Your task to perform on an android device: Turn on the flashlight Image 0: 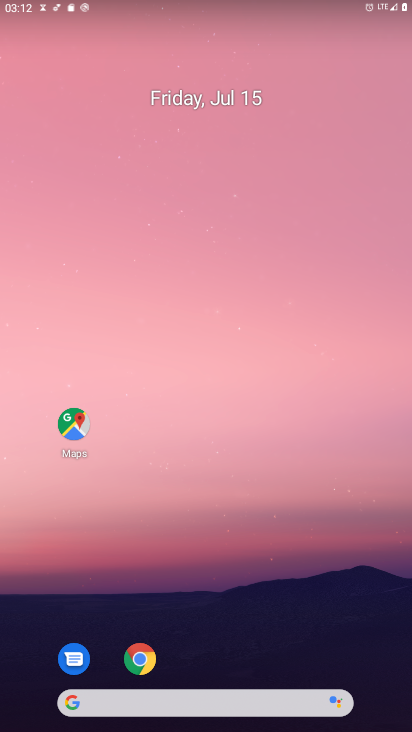
Step 0: drag from (37, 600) to (215, 128)
Your task to perform on an android device: Turn on the flashlight Image 1: 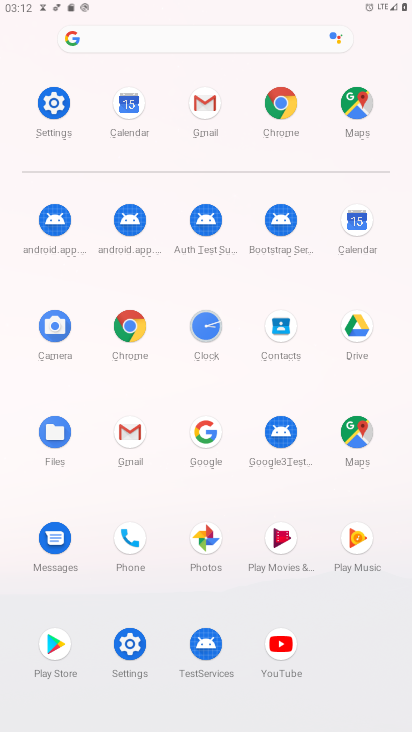
Step 1: click (58, 93)
Your task to perform on an android device: Turn on the flashlight Image 2: 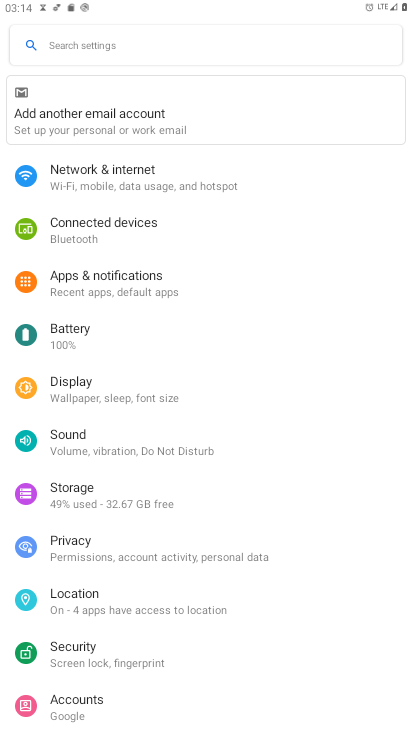
Step 2: task complete